Your task to perform on an android device: turn off notifications in google photos Image 0: 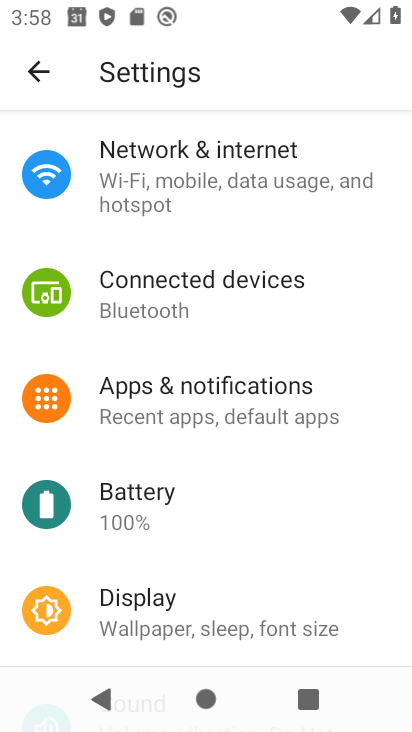
Step 0: press back button
Your task to perform on an android device: turn off notifications in google photos Image 1: 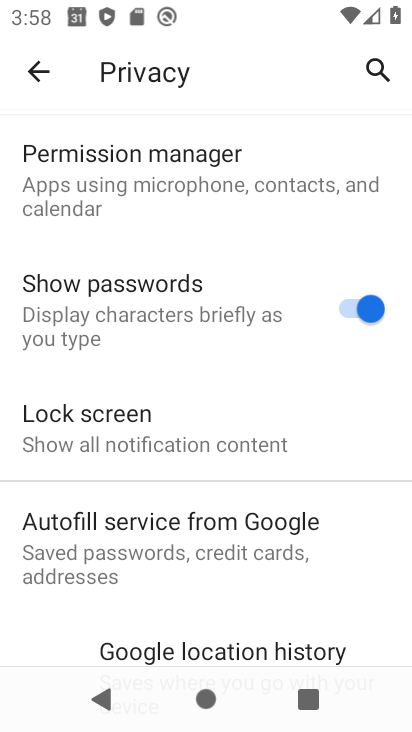
Step 1: press home button
Your task to perform on an android device: turn off notifications in google photos Image 2: 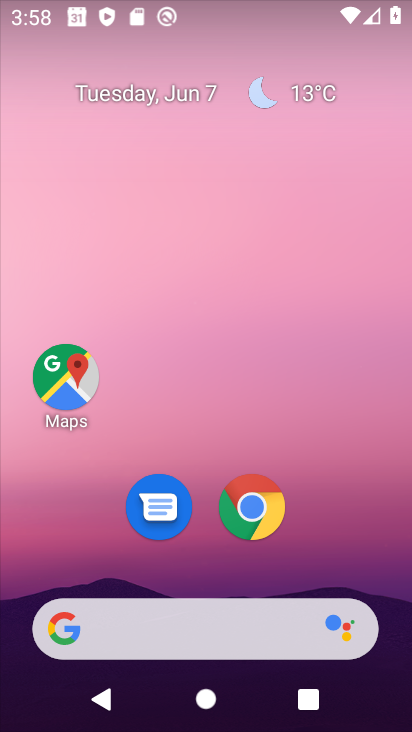
Step 2: drag from (352, 579) to (275, 34)
Your task to perform on an android device: turn off notifications in google photos Image 3: 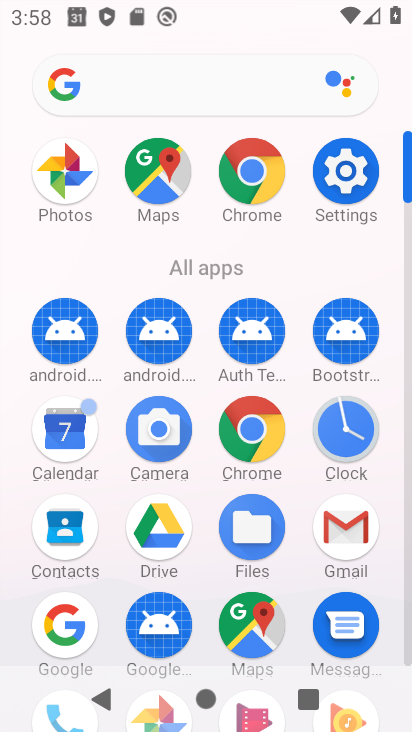
Step 3: drag from (19, 583) to (36, 282)
Your task to perform on an android device: turn off notifications in google photos Image 4: 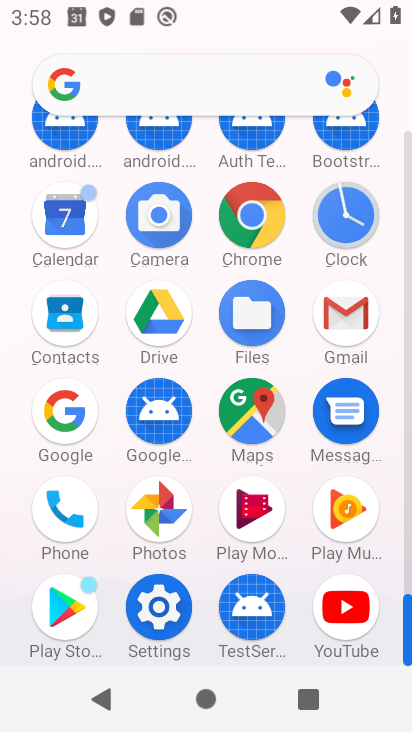
Step 4: click (157, 504)
Your task to perform on an android device: turn off notifications in google photos Image 5: 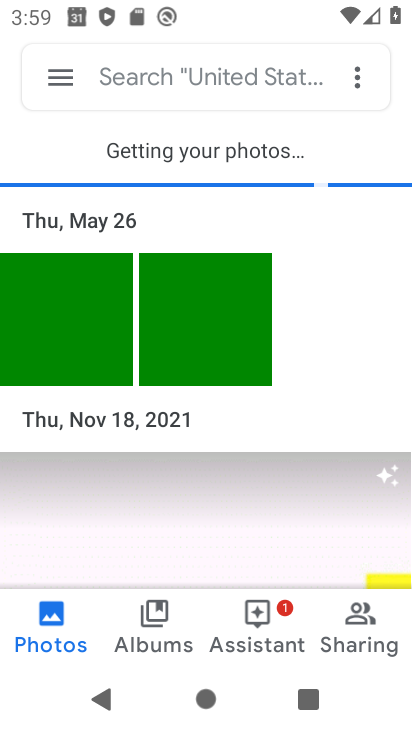
Step 5: click (63, 79)
Your task to perform on an android device: turn off notifications in google photos Image 6: 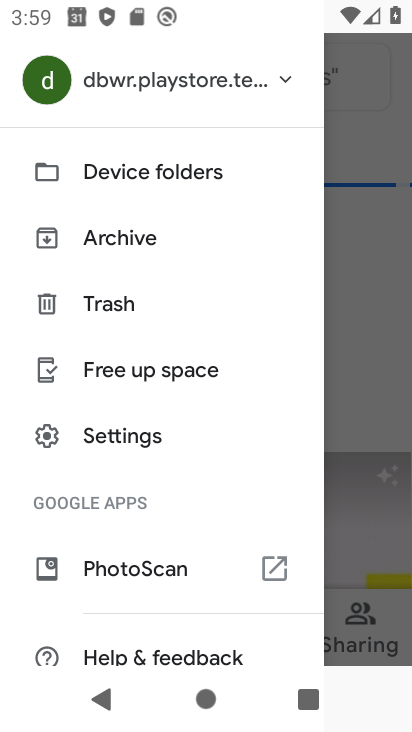
Step 6: click (153, 443)
Your task to perform on an android device: turn off notifications in google photos Image 7: 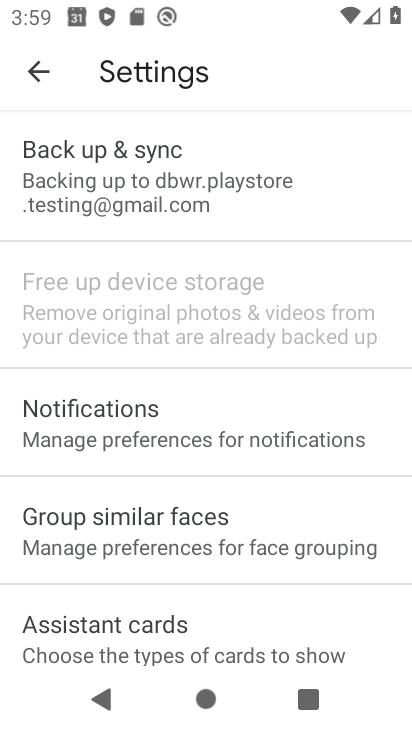
Step 7: click (182, 436)
Your task to perform on an android device: turn off notifications in google photos Image 8: 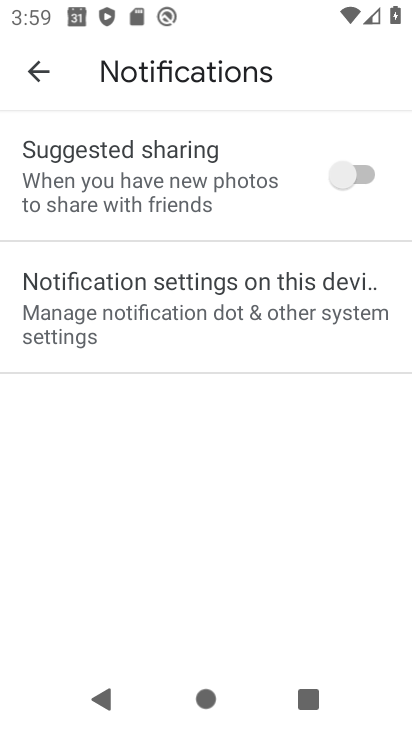
Step 8: click (224, 314)
Your task to perform on an android device: turn off notifications in google photos Image 9: 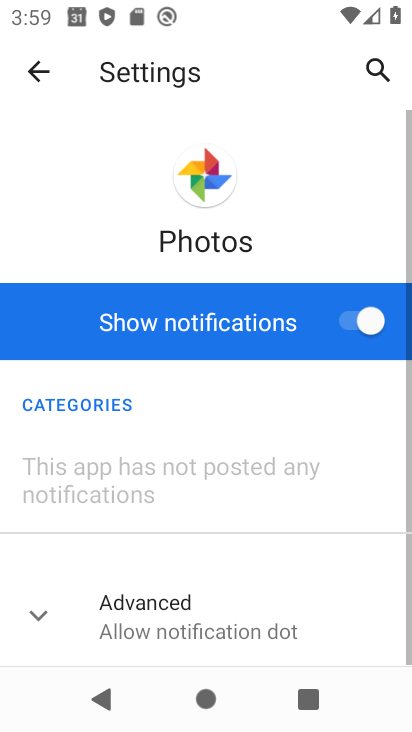
Step 9: click (365, 307)
Your task to perform on an android device: turn off notifications in google photos Image 10: 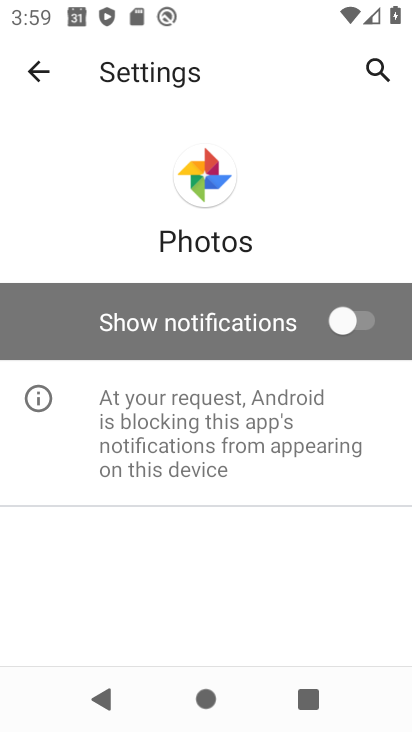
Step 10: task complete